Your task to perform on an android device: toggle data saver in the chrome app Image 0: 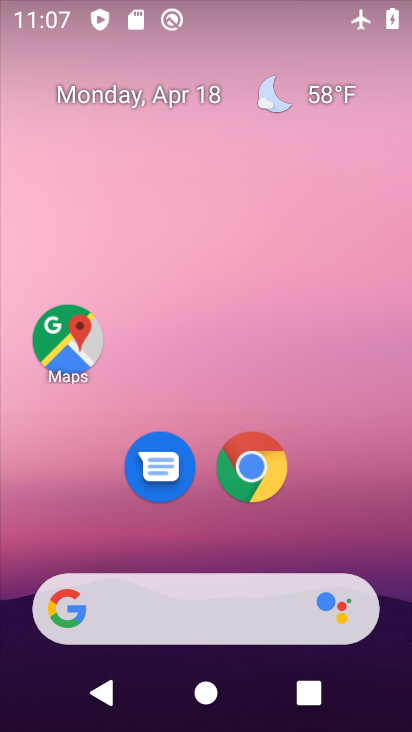
Step 0: click (257, 468)
Your task to perform on an android device: toggle data saver in the chrome app Image 1: 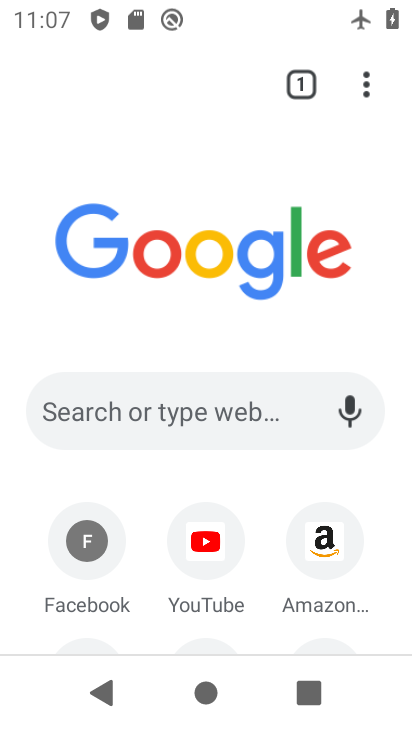
Step 1: click (363, 82)
Your task to perform on an android device: toggle data saver in the chrome app Image 2: 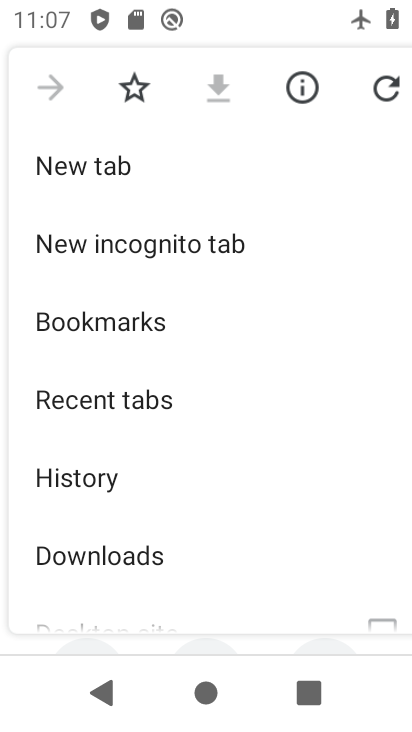
Step 2: drag from (184, 268) to (154, 66)
Your task to perform on an android device: toggle data saver in the chrome app Image 3: 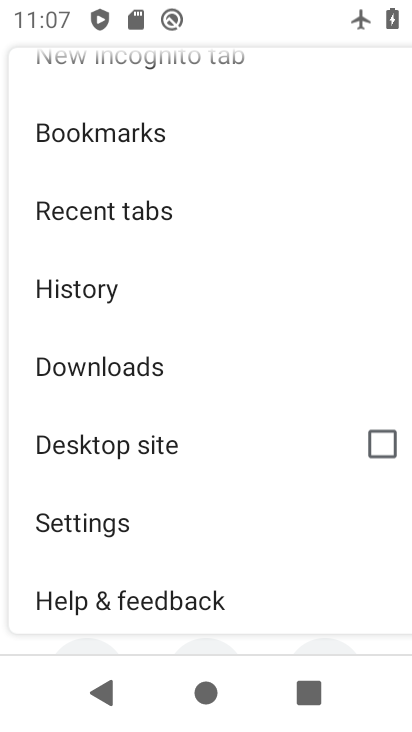
Step 3: click (181, 540)
Your task to perform on an android device: toggle data saver in the chrome app Image 4: 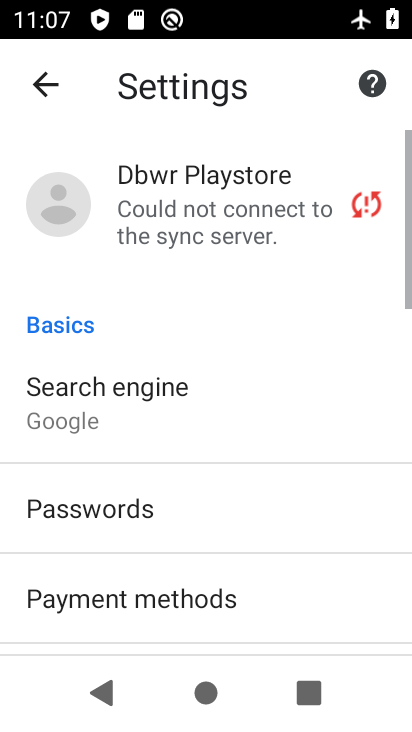
Step 4: drag from (221, 563) to (223, 141)
Your task to perform on an android device: toggle data saver in the chrome app Image 5: 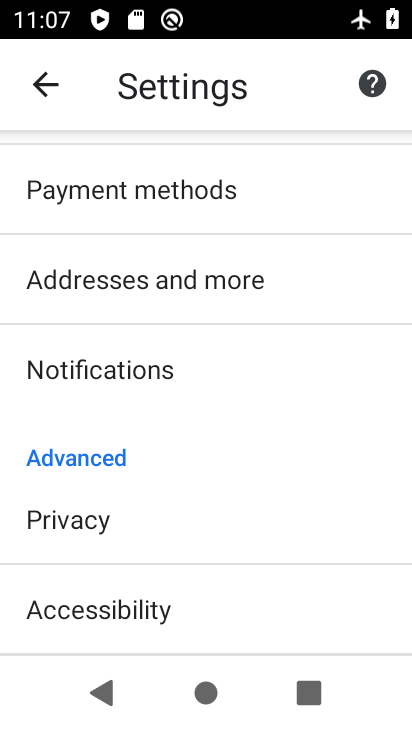
Step 5: drag from (223, 472) to (227, 210)
Your task to perform on an android device: toggle data saver in the chrome app Image 6: 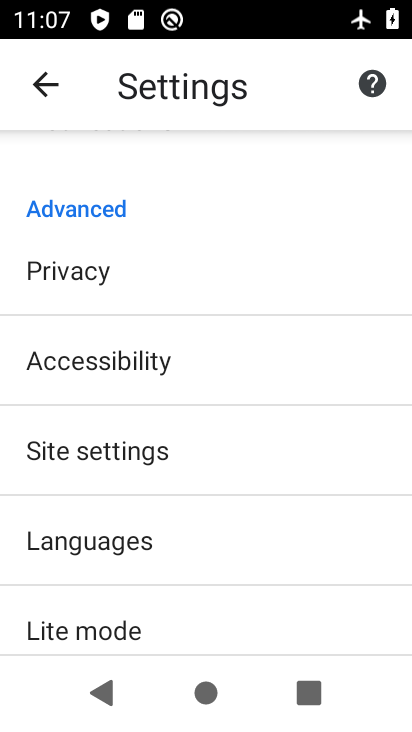
Step 6: click (183, 614)
Your task to perform on an android device: toggle data saver in the chrome app Image 7: 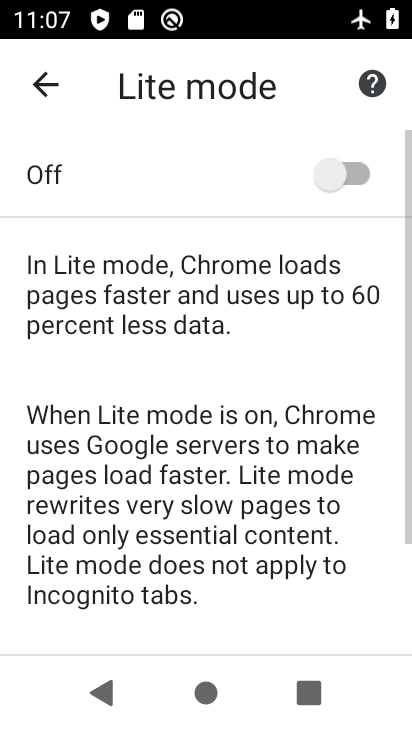
Step 7: click (354, 167)
Your task to perform on an android device: toggle data saver in the chrome app Image 8: 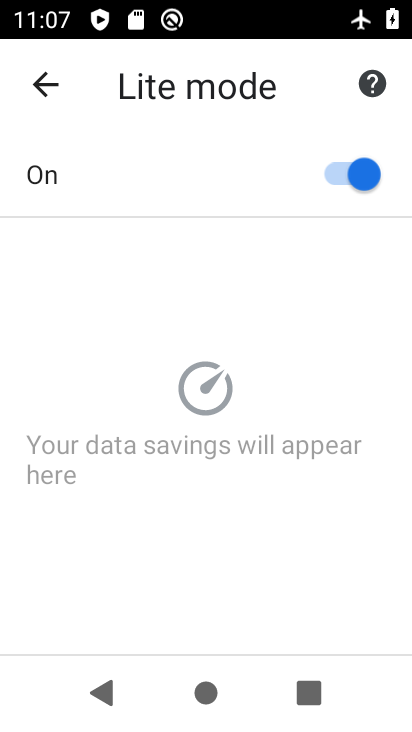
Step 8: task complete